Your task to perform on an android device: add a contact in the contacts app Image 0: 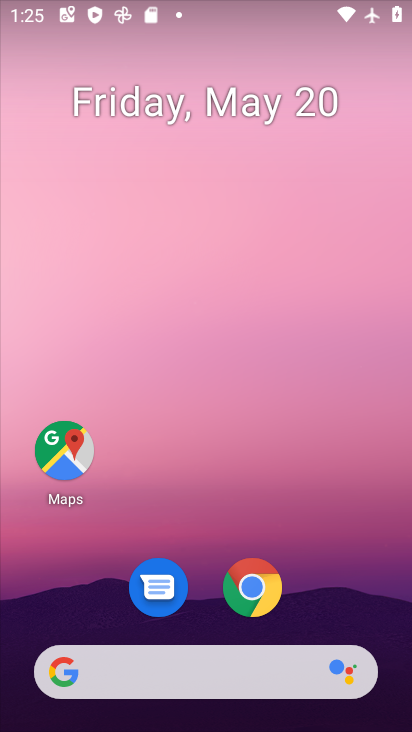
Step 0: drag from (312, 510) to (239, 27)
Your task to perform on an android device: add a contact in the contacts app Image 1: 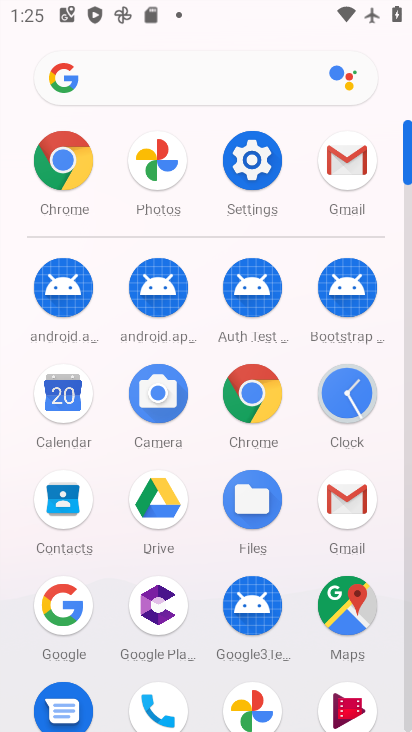
Step 1: click (55, 505)
Your task to perform on an android device: add a contact in the contacts app Image 2: 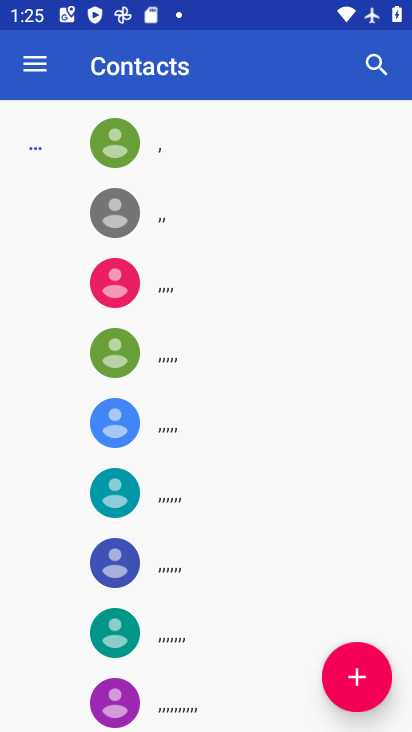
Step 2: click (359, 677)
Your task to perform on an android device: add a contact in the contacts app Image 3: 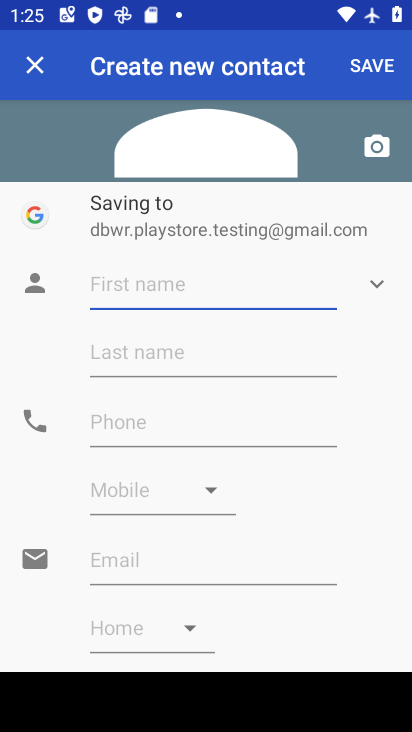
Step 3: type "ghnnb"
Your task to perform on an android device: add a contact in the contacts app Image 4: 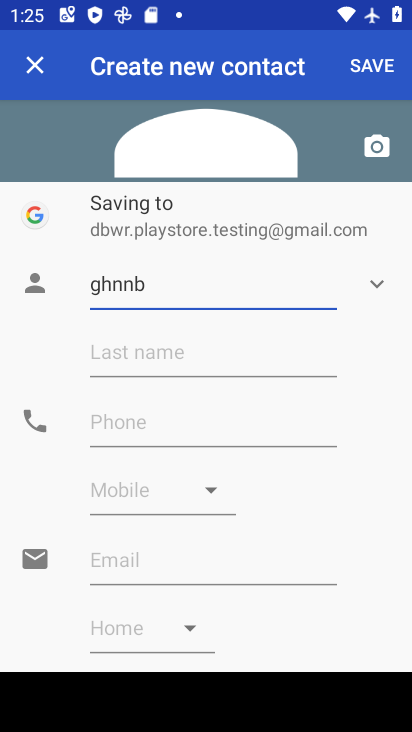
Step 4: click (133, 404)
Your task to perform on an android device: add a contact in the contacts app Image 5: 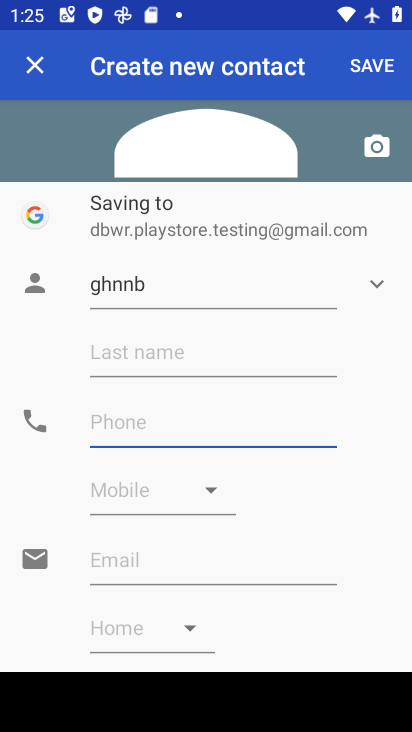
Step 5: type "77778878787"
Your task to perform on an android device: add a contact in the contacts app Image 6: 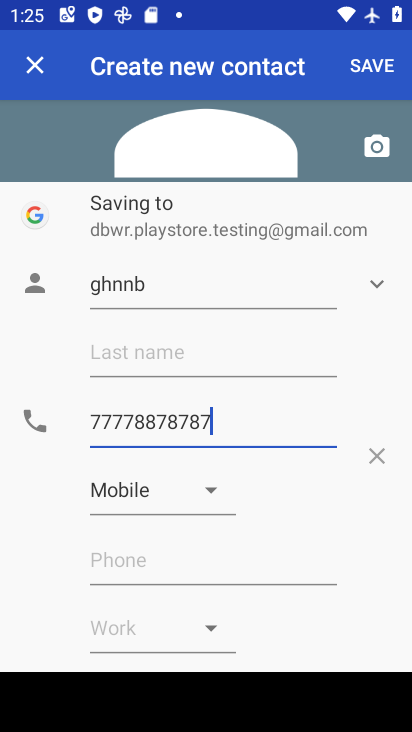
Step 6: click (371, 64)
Your task to perform on an android device: add a contact in the contacts app Image 7: 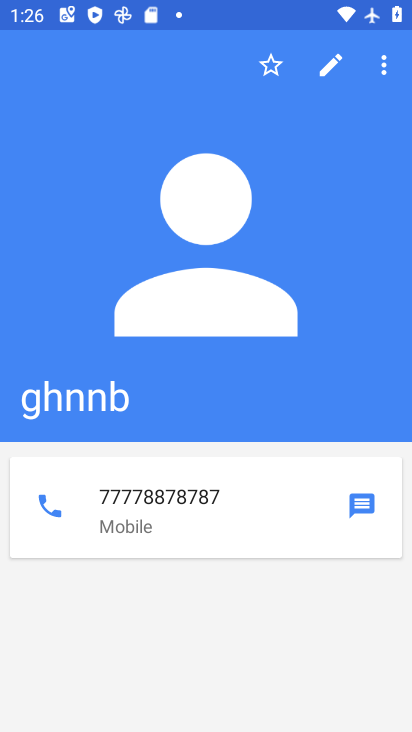
Step 7: task complete